Your task to perform on an android device: toggle location history Image 0: 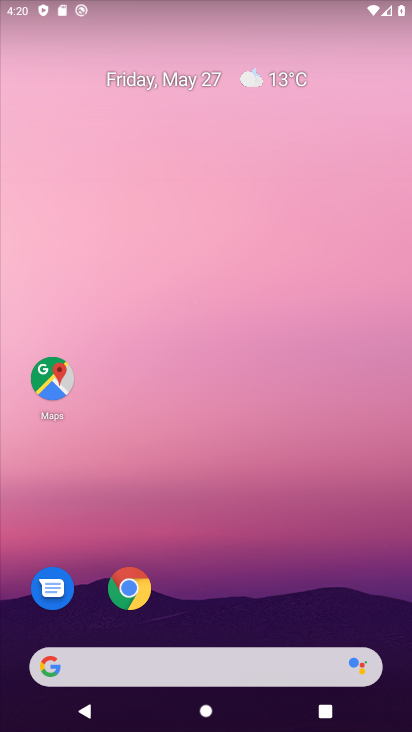
Step 0: drag from (260, 488) to (300, 207)
Your task to perform on an android device: toggle location history Image 1: 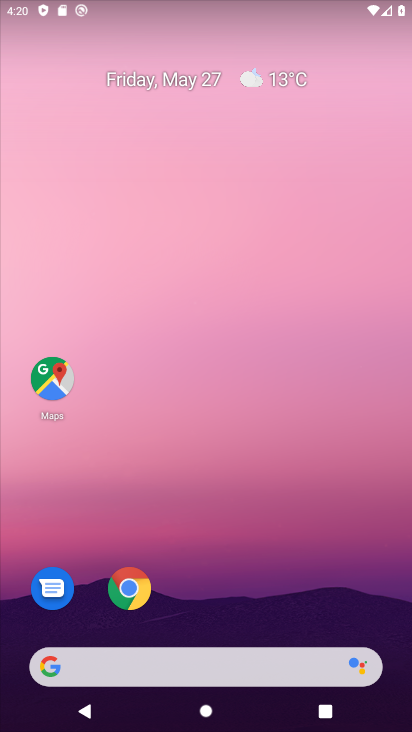
Step 1: click (268, 67)
Your task to perform on an android device: toggle location history Image 2: 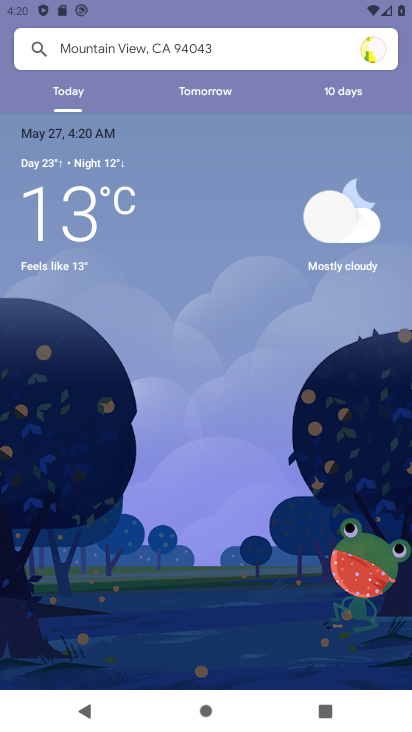
Step 2: press home button
Your task to perform on an android device: toggle location history Image 3: 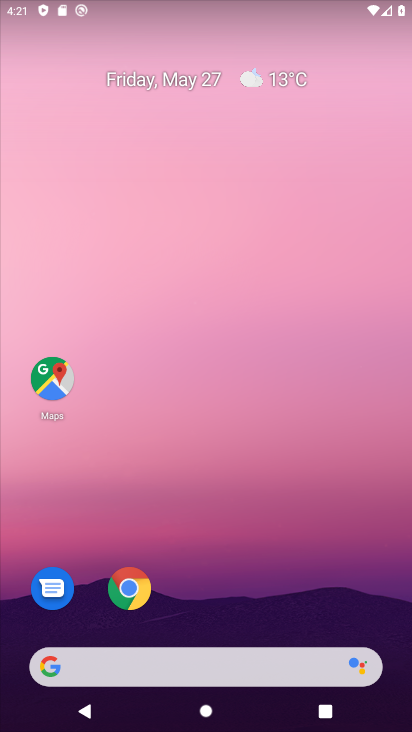
Step 3: drag from (258, 538) to (317, 80)
Your task to perform on an android device: toggle location history Image 4: 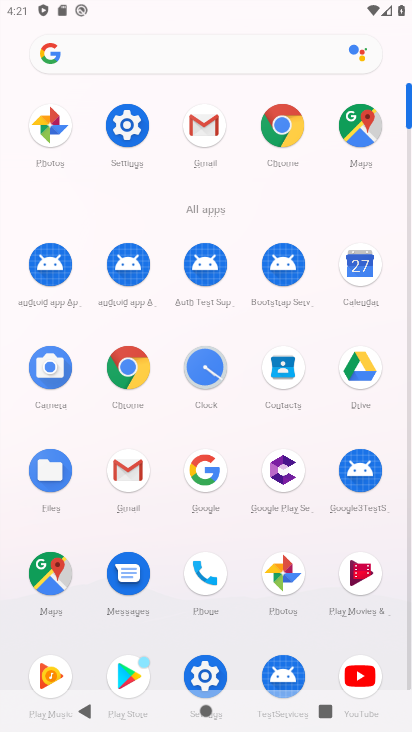
Step 4: click (131, 121)
Your task to perform on an android device: toggle location history Image 5: 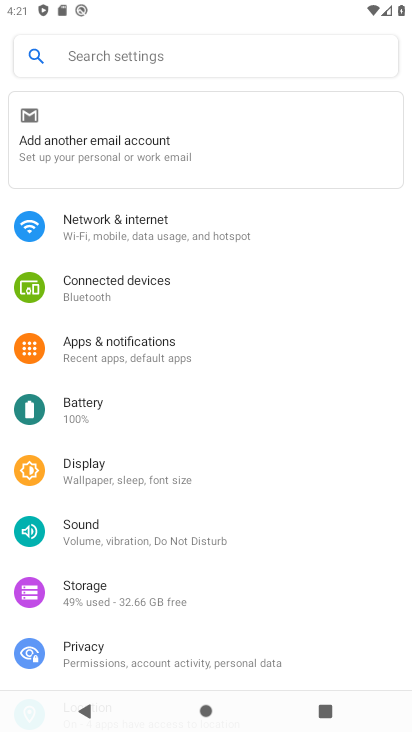
Step 5: drag from (118, 604) to (179, 137)
Your task to perform on an android device: toggle location history Image 6: 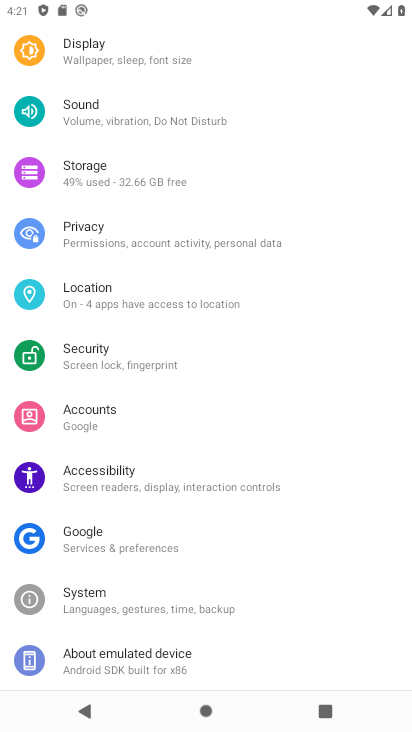
Step 6: click (89, 298)
Your task to perform on an android device: toggle location history Image 7: 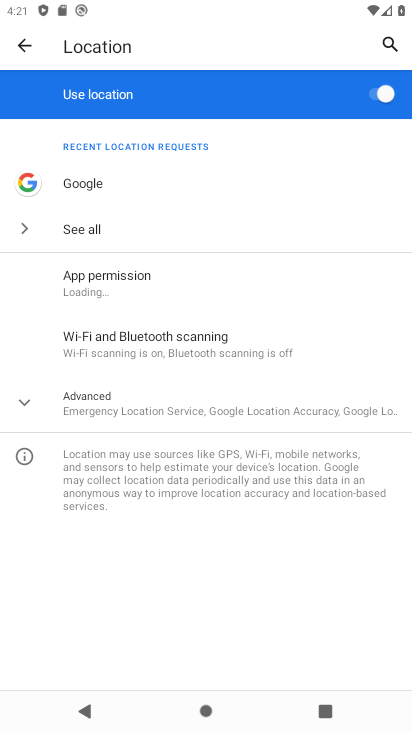
Step 7: click (142, 414)
Your task to perform on an android device: toggle location history Image 8: 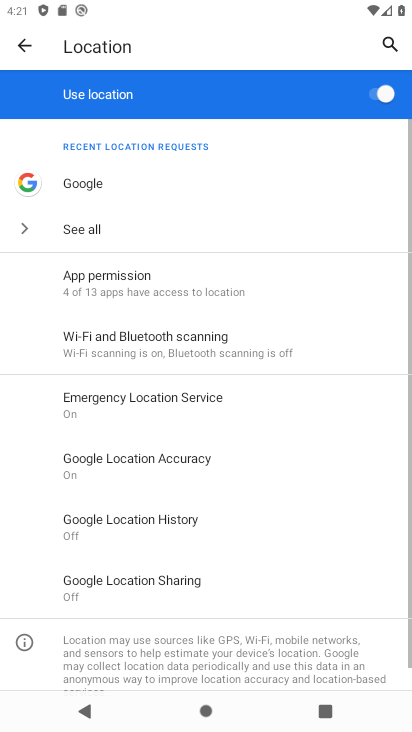
Step 8: click (129, 520)
Your task to perform on an android device: toggle location history Image 9: 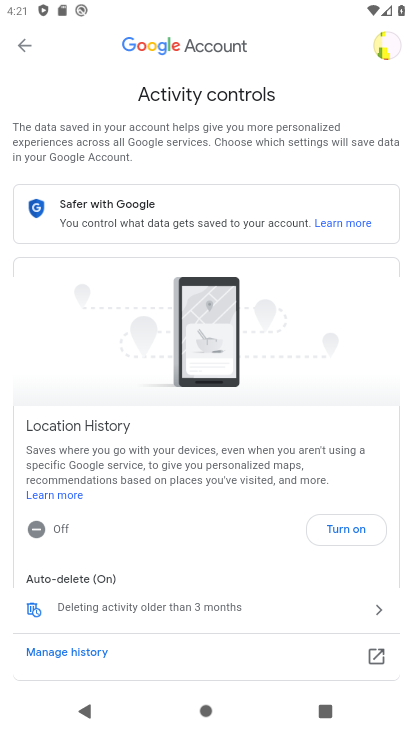
Step 9: click (344, 529)
Your task to perform on an android device: toggle location history Image 10: 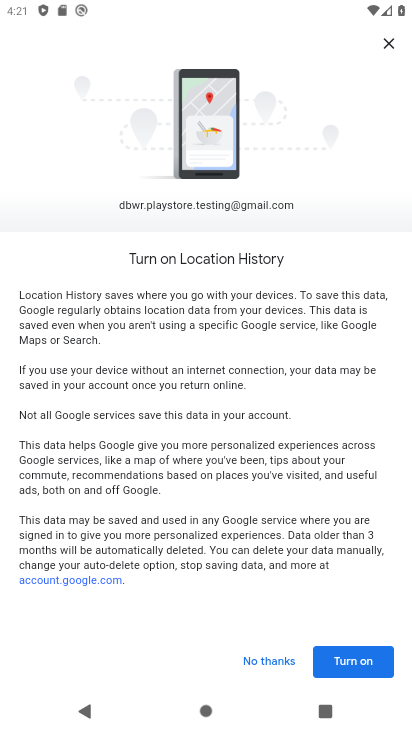
Step 10: click (334, 661)
Your task to perform on an android device: toggle location history Image 11: 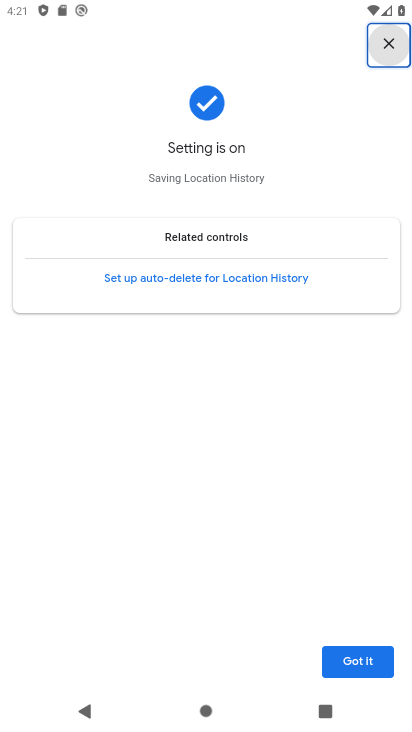
Step 11: click (355, 674)
Your task to perform on an android device: toggle location history Image 12: 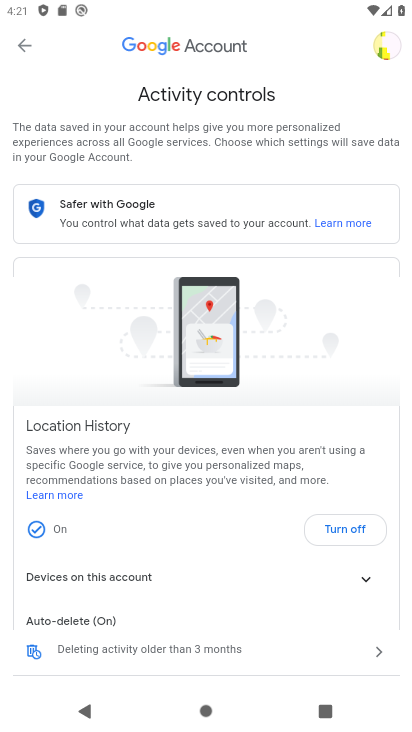
Step 12: task complete